Your task to perform on an android device: What's the weather today? Image 0: 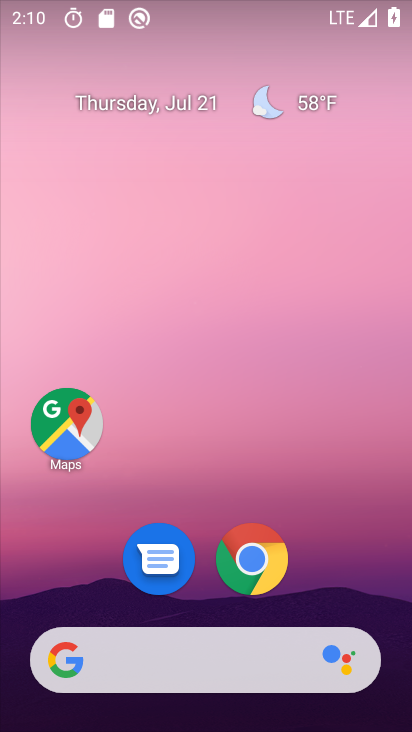
Step 0: click (211, 673)
Your task to perform on an android device: What's the weather today? Image 1: 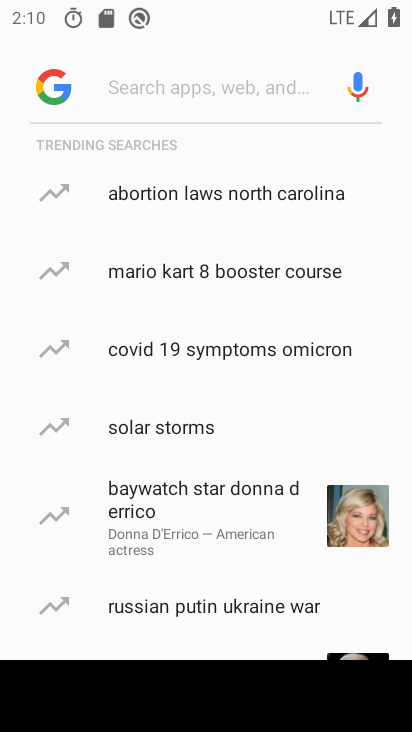
Step 1: type "weather"
Your task to perform on an android device: What's the weather today? Image 2: 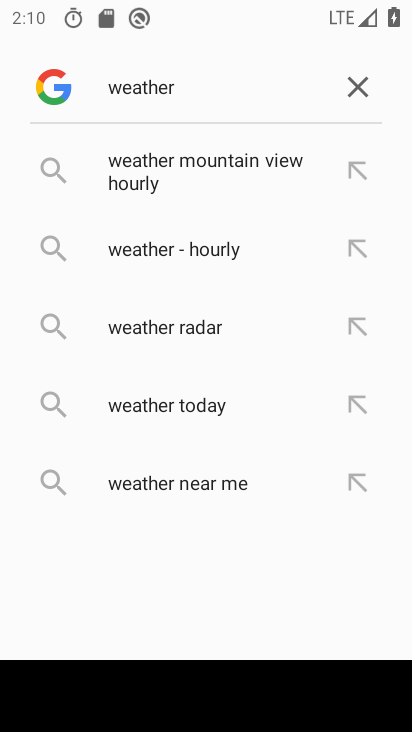
Step 2: click (231, 411)
Your task to perform on an android device: What's the weather today? Image 3: 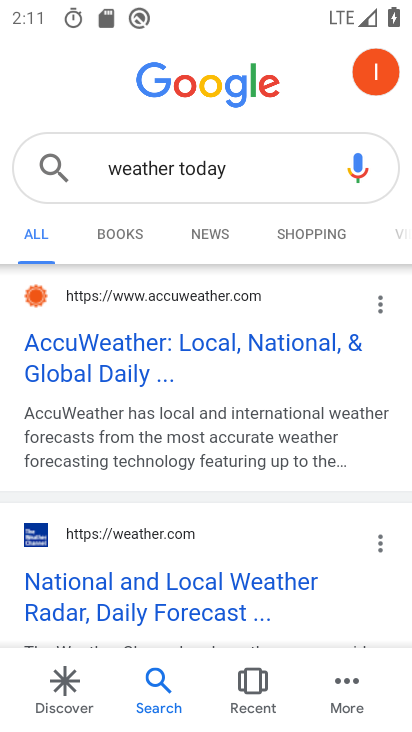
Step 3: task complete